Your task to perform on an android device: Open Google Maps Image 0: 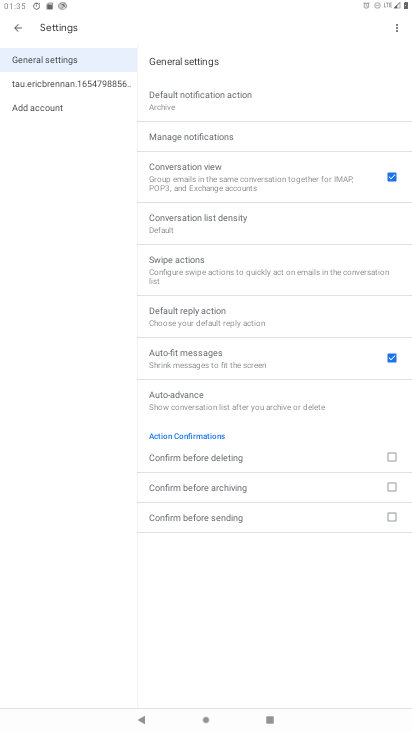
Step 0: press home button
Your task to perform on an android device: Open Google Maps Image 1: 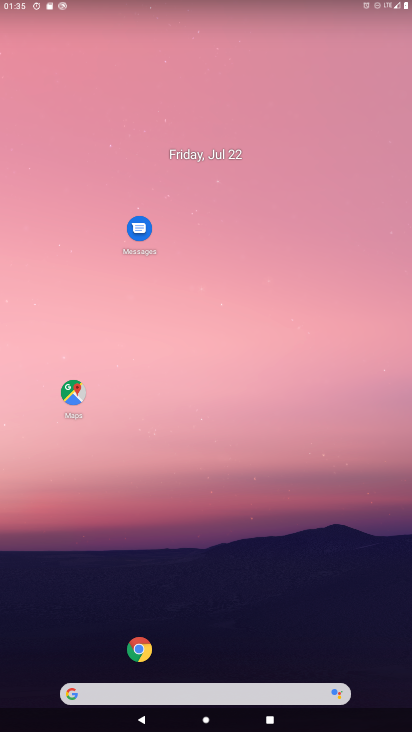
Step 1: click (73, 394)
Your task to perform on an android device: Open Google Maps Image 2: 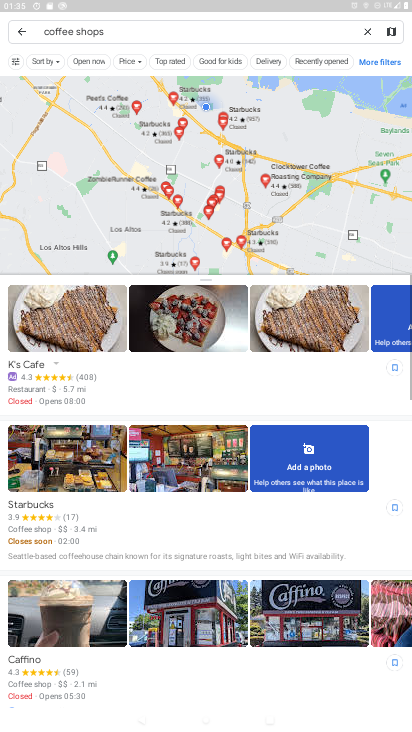
Step 2: click (21, 32)
Your task to perform on an android device: Open Google Maps Image 3: 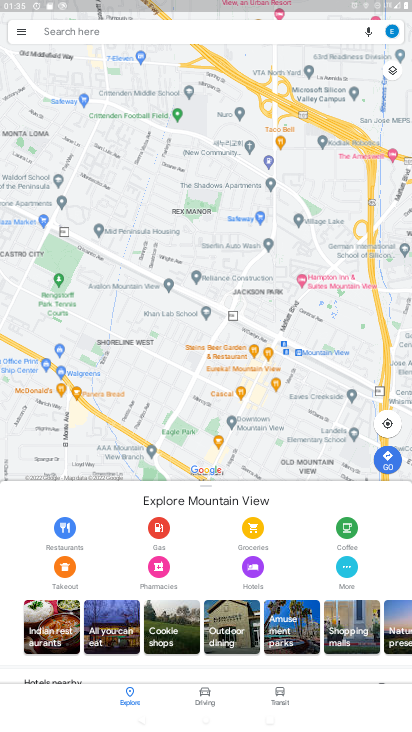
Step 3: task complete